Your task to perform on an android device: Show me recent news Image 0: 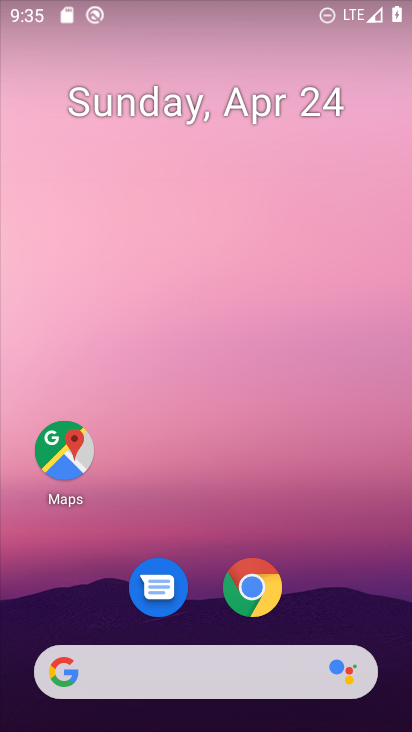
Step 0: drag from (383, 580) to (358, 177)
Your task to perform on an android device: Show me recent news Image 1: 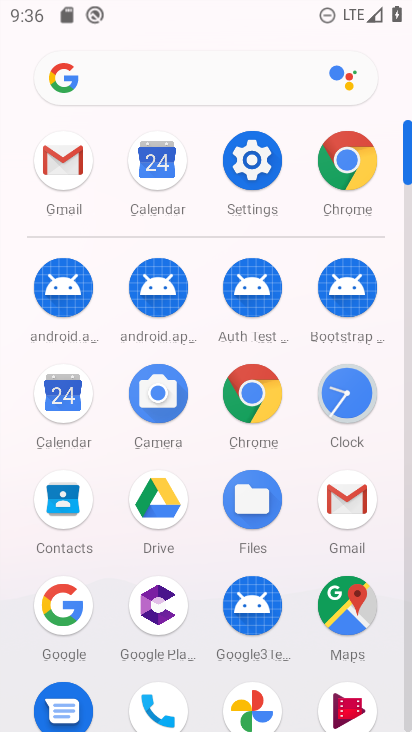
Step 1: drag from (199, 649) to (214, 228)
Your task to perform on an android device: Show me recent news Image 2: 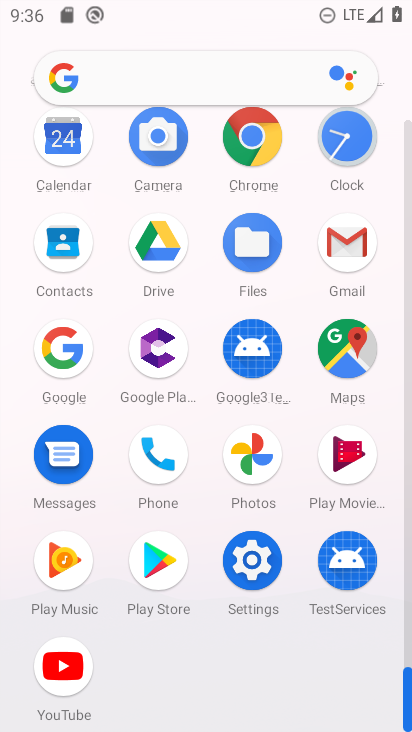
Step 2: click (264, 135)
Your task to perform on an android device: Show me recent news Image 3: 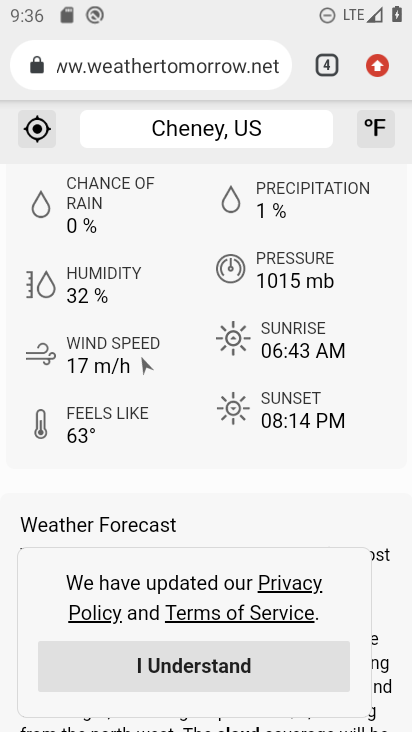
Step 3: click (169, 67)
Your task to perform on an android device: Show me recent news Image 4: 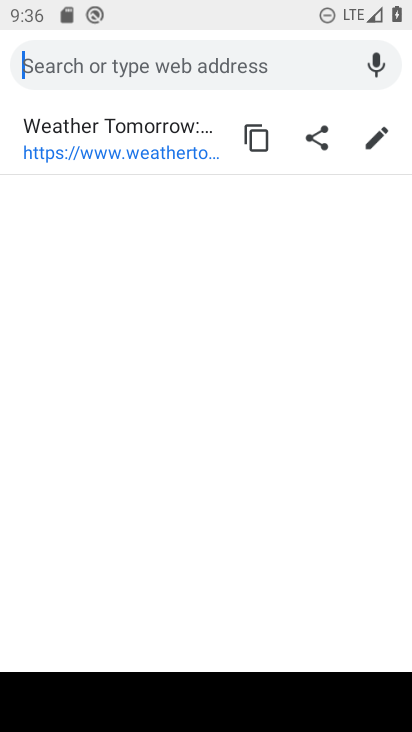
Step 4: type "recent news"
Your task to perform on an android device: Show me recent news Image 5: 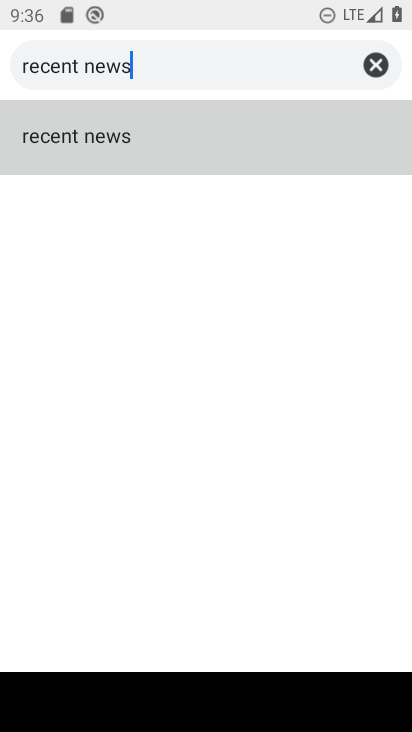
Step 5: click (100, 137)
Your task to perform on an android device: Show me recent news Image 6: 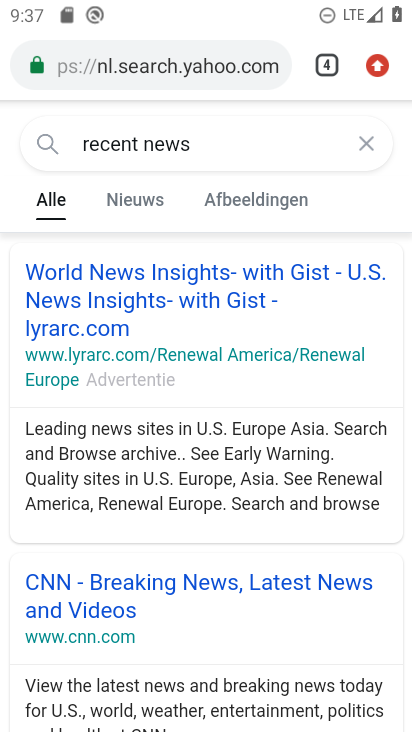
Step 6: click (161, 276)
Your task to perform on an android device: Show me recent news Image 7: 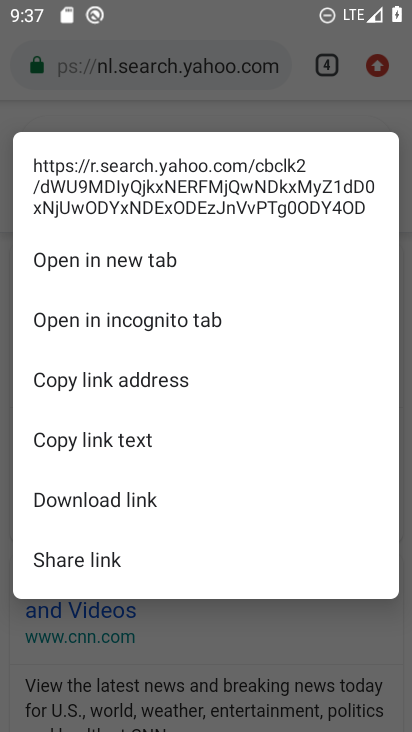
Step 7: click (243, 119)
Your task to perform on an android device: Show me recent news Image 8: 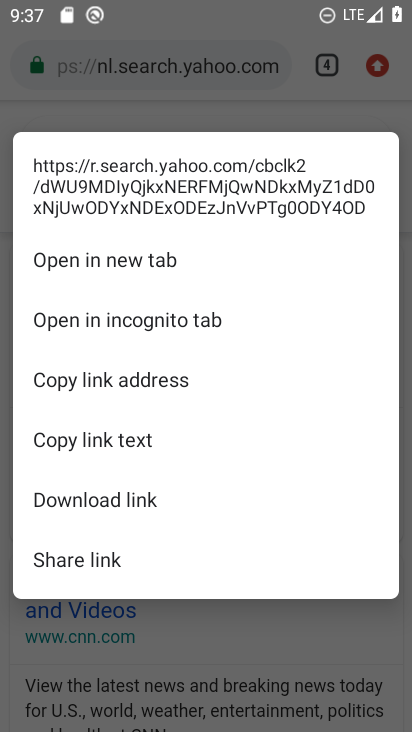
Step 8: click (165, 643)
Your task to perform on an android device: Show me recent news Image 9: 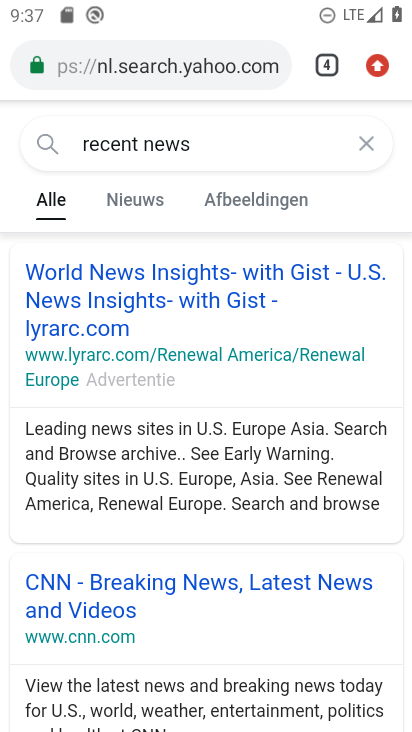
Step 9: click (147, 302)
Your task to perform on an android device: Show me recent news Image 10: 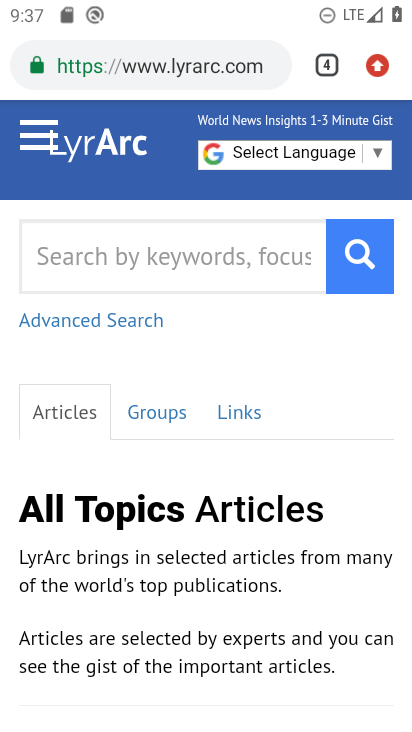
Step 10: task complete